Your task to perform on an android device: toggle improve location accuracy Image 0: 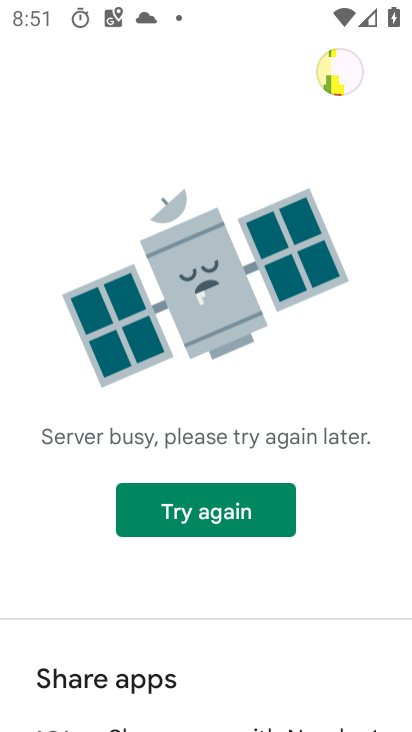
Step 0: task impossible